Your task to perform on an android device: Go to sound settings Image 0: 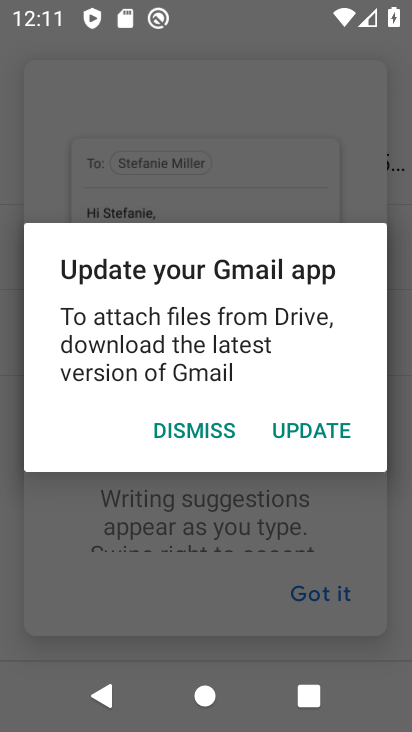
Step 0: press back button
Your task to perform on an android device: Go to sound settings Image 1: 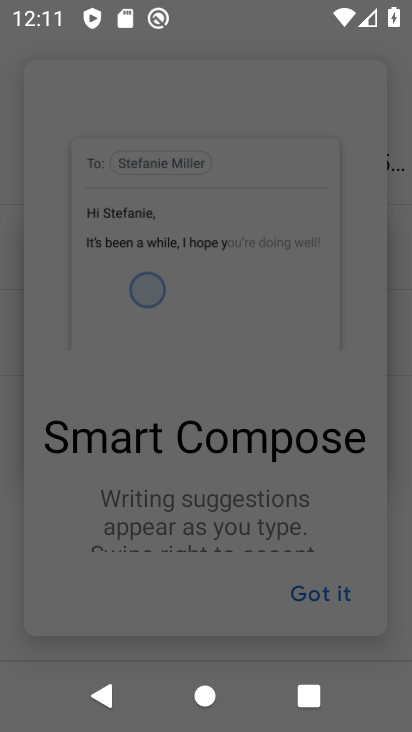
Step 1: press back button
Your task to perform on an android device: Go to sound settings Image 2: 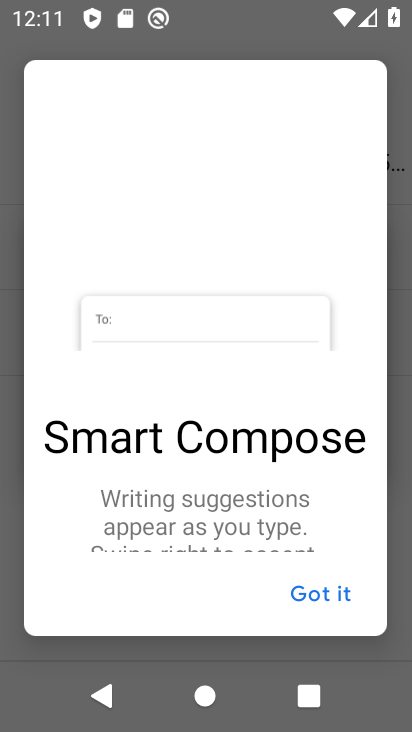
Step 2: press home button
Your task to perform on an android device: Go to sound settings Image 3: 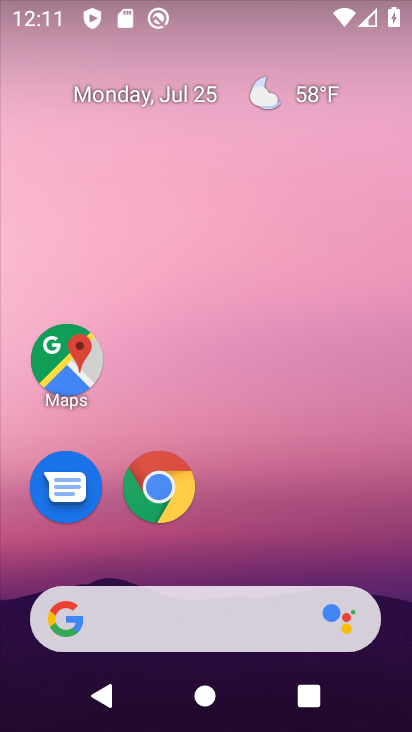
Step 3: drag from (252, 528) to (370, 0)
Your task to perform on an android device: Go to sound settings Image 4: 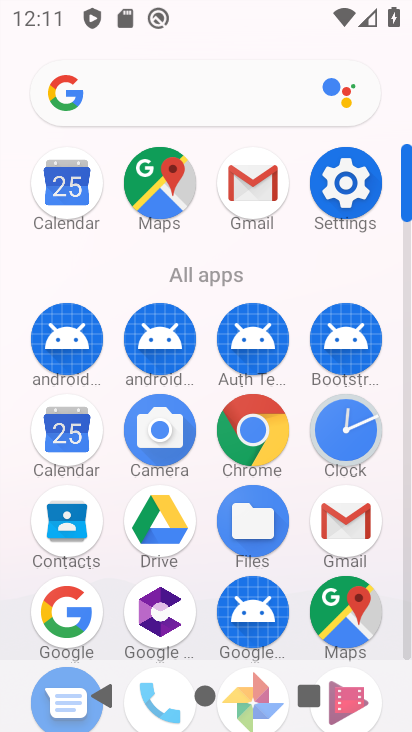
Step 4: click (361, 189)
Your task to perform on an android device: Go to sound settings Image 5: 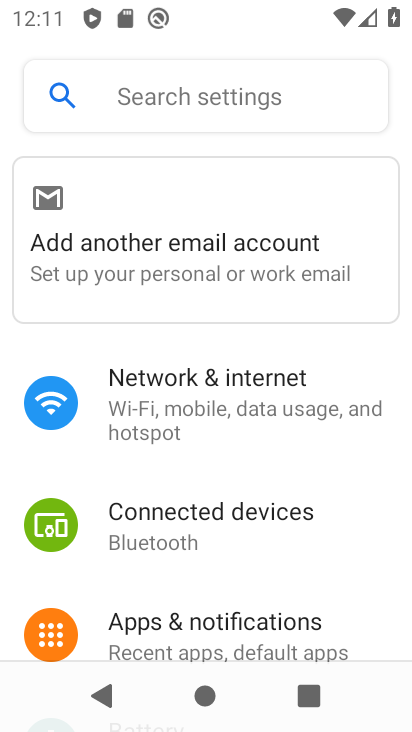
Step 5: drag from (216, 604) to (289, 27)
Your task to perform on an android device: Go to sound settings Image 6: 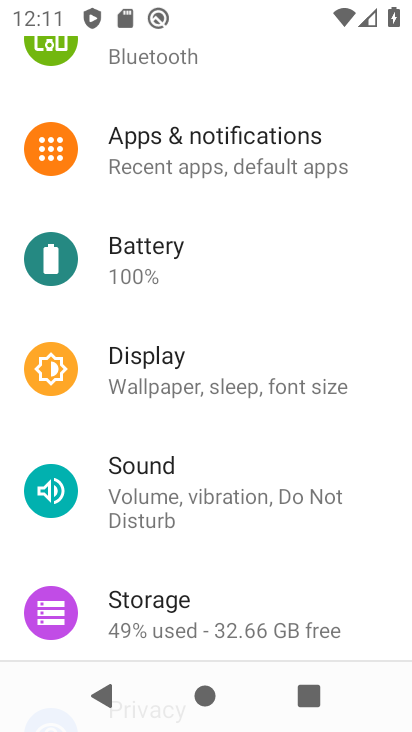
Step 6: click (177, 484)
Your task to perform on an android device: Go to sound settings Image 7: 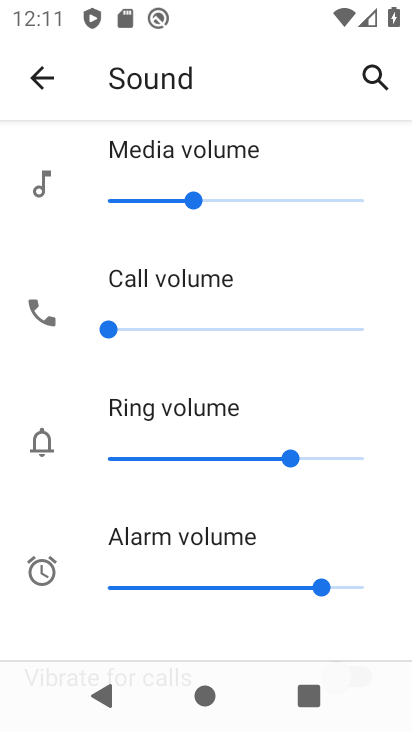
Step 7: task complete